Your task to perform on an android device: toggle location history Image 0: 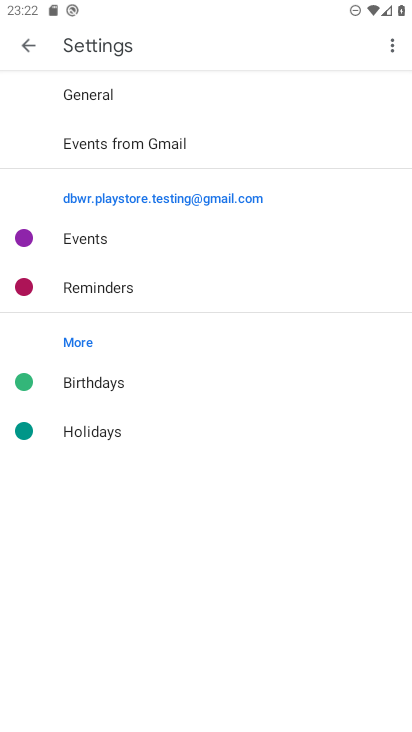
Step 0: drag from (249, 645) to (238, 247)
Your task to perform on an android device: toggle location history Image 1: 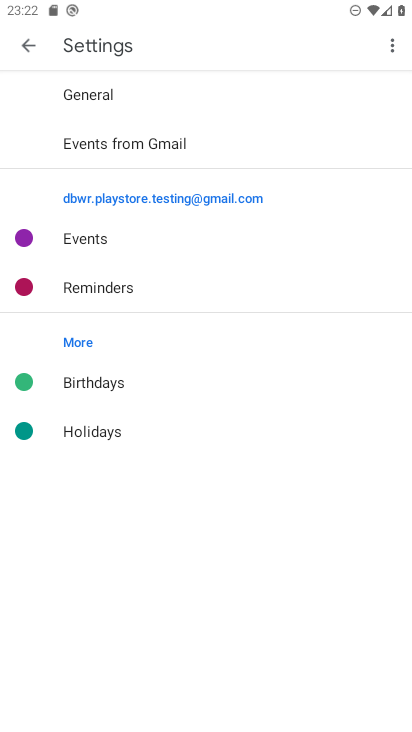
Step 1: press home button
Your task to perform on an android device: toggle location history Image 2: 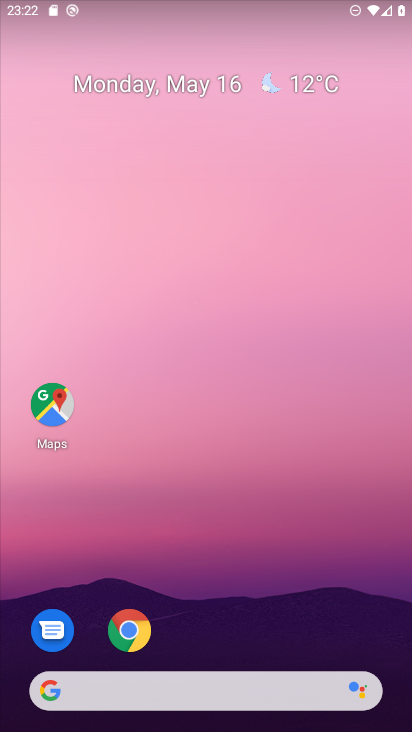
Step 2: drag from (218, 617) to (246, 78)
Your task to perform on an android device: toggle location history Image 3: 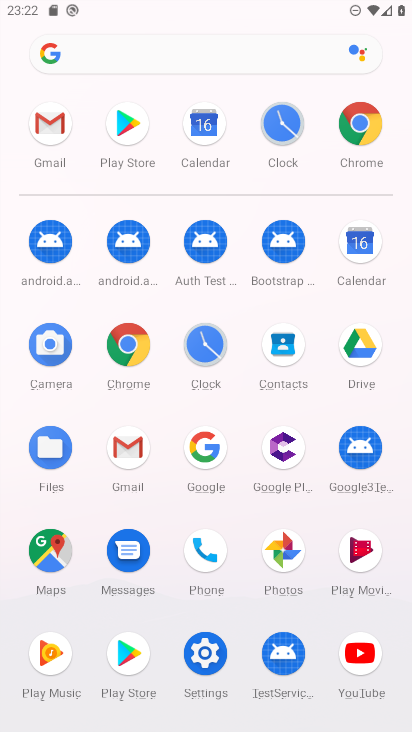
Step 3: click (206, 650)
Your task to perform on an android device: toggle location history Image 4: 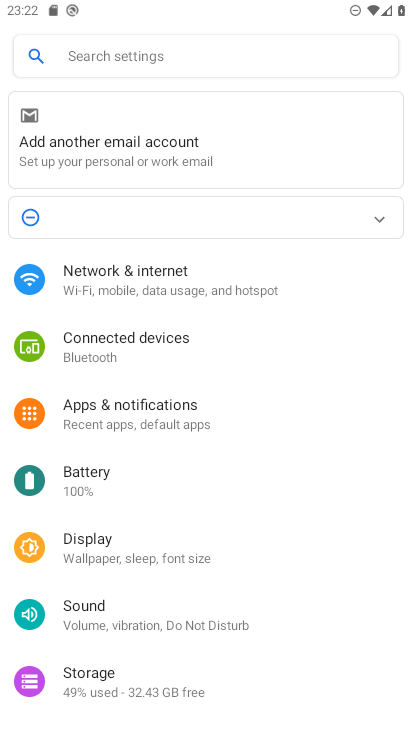
Step 4: drag from (214, 526) to (210, 307)
Your task to perform on an android device: toggle location history Image 5: 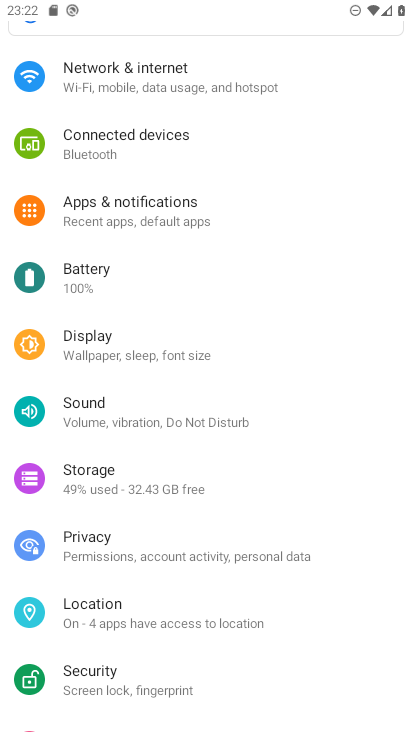
Step 5: click (117, 600)
Your task to perform on an android device: toggle location history Image 6: 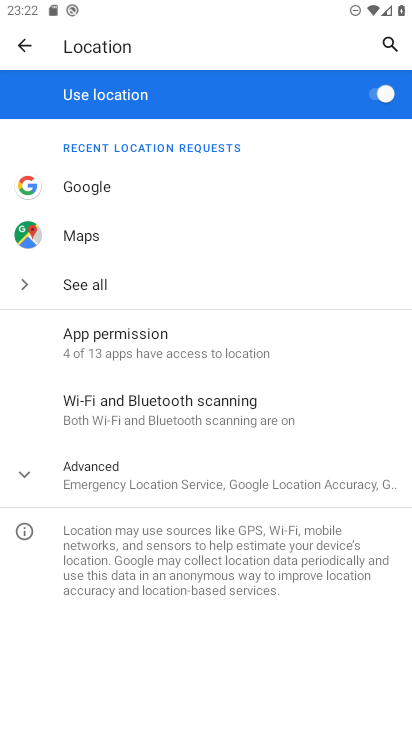
Step 6: click (26, 463)
Your task to perform on an android device: toggle location history Image 7: 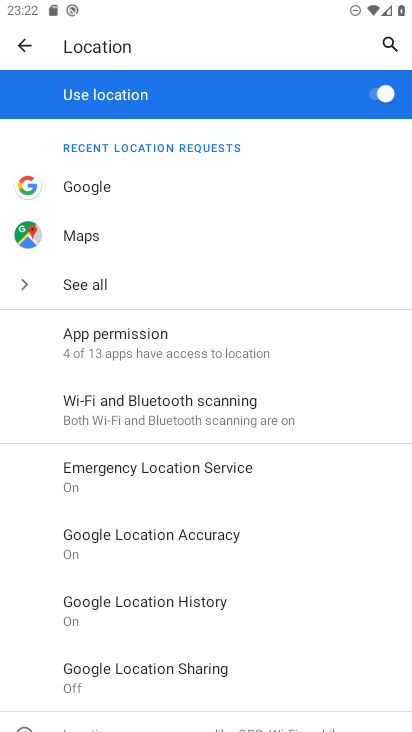
Step 7: click (218, 605)
Your task to perform on an android device: toggle location history Image 8: 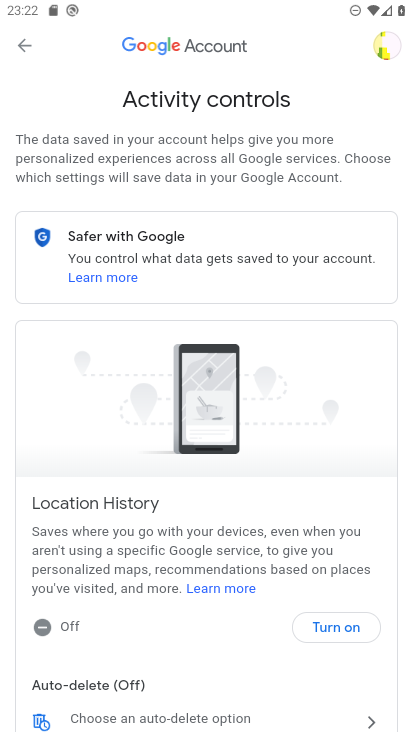
Step 8: click (25, 43)
Your task to perform on an android device: toggle location history Image 9: 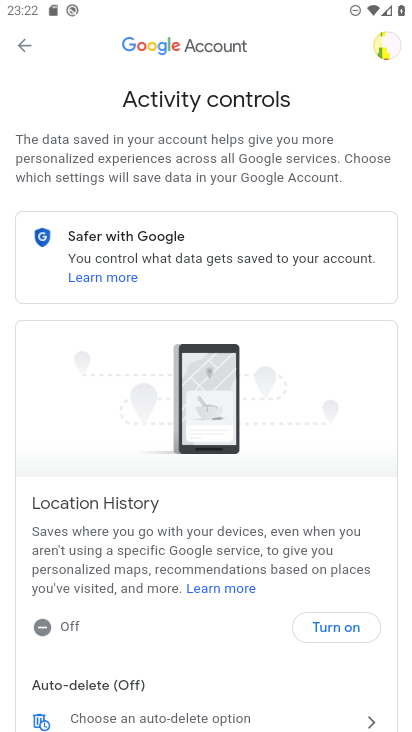
Step 9: click (25, 42)
Your task to perform on an android device: toggle location history Image 10: 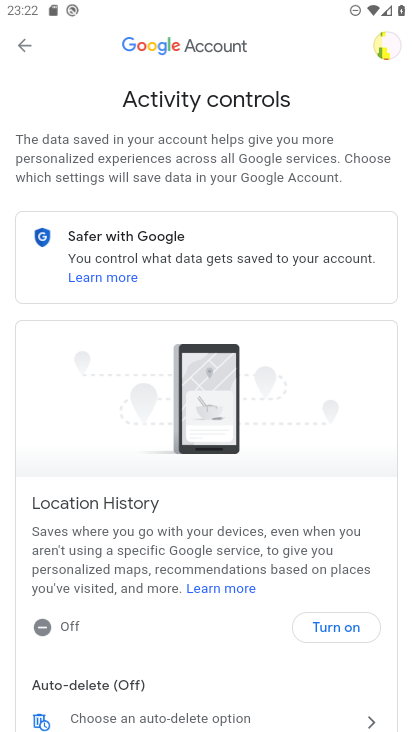
Step 10: click (17, 40)
Your task to perform on an android device: toggle location history Image 11: 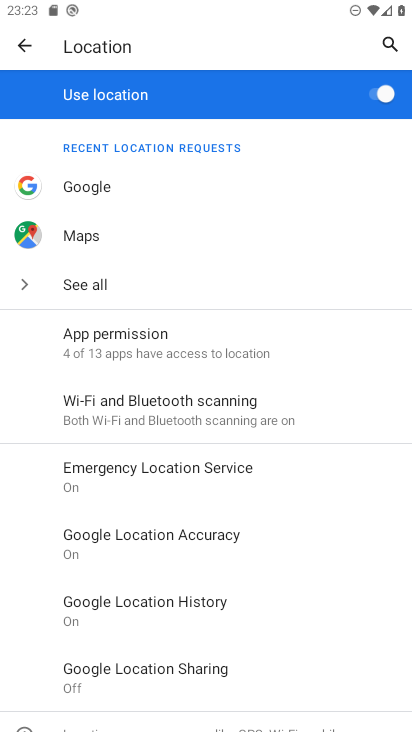
Step 11: click (141, 613)
Your task to perform on an android device: toggle location history Image 12: 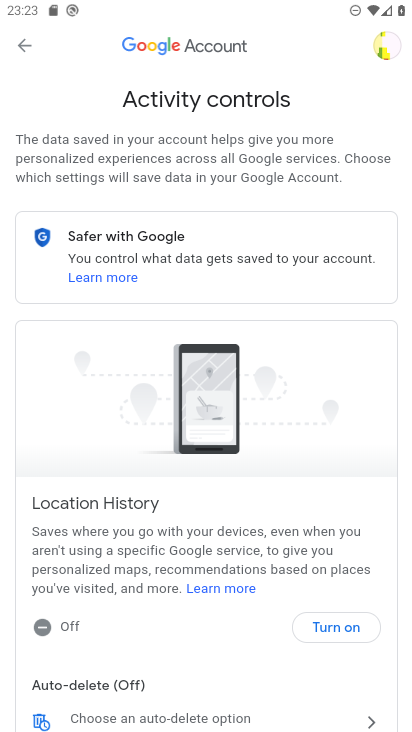
Step 12: click (338, 618)
Your task to perform on an android device: toggle location history Image 13: 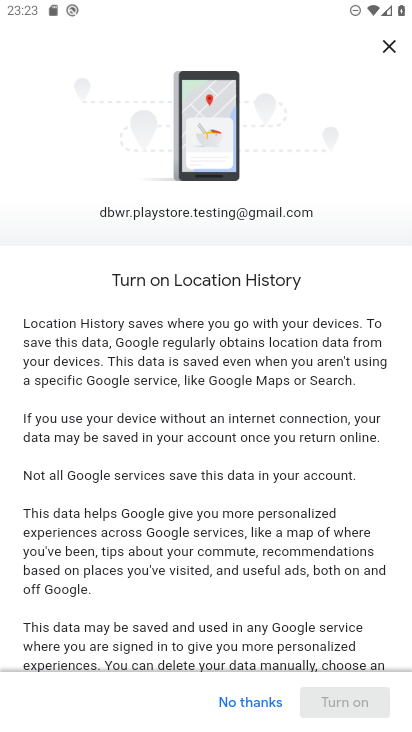
Step 13: drag from (279, 598) to (301, 319)
Your task to perform on an android device: toggle location history Image 14: 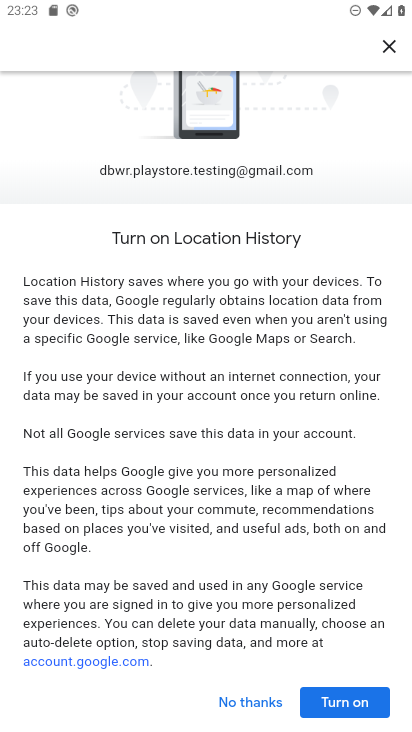
Step 14: drag from (283, 531) to (312, 322)
Your task to perform on an android device: toggle location history Image 15: 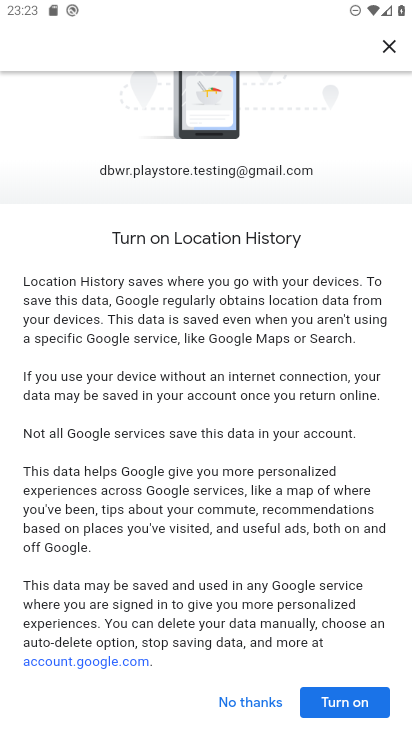
Step 15: click (327, 701)
Your task to perform on an android device: toggle location history Image 16: 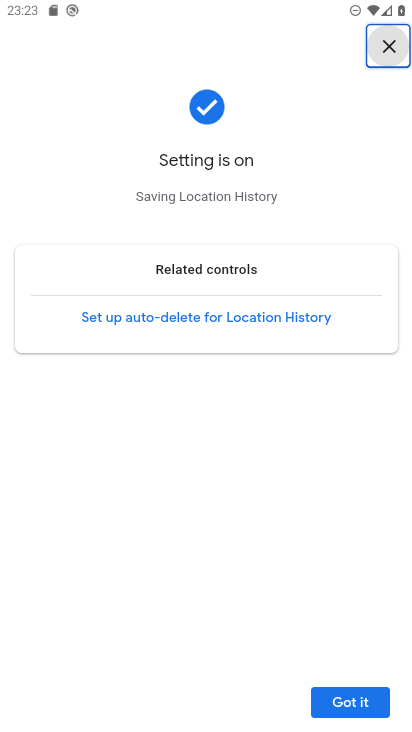
Step 16: click (364, 703)
Your task to perform on an android device: toggle location history Image 17: 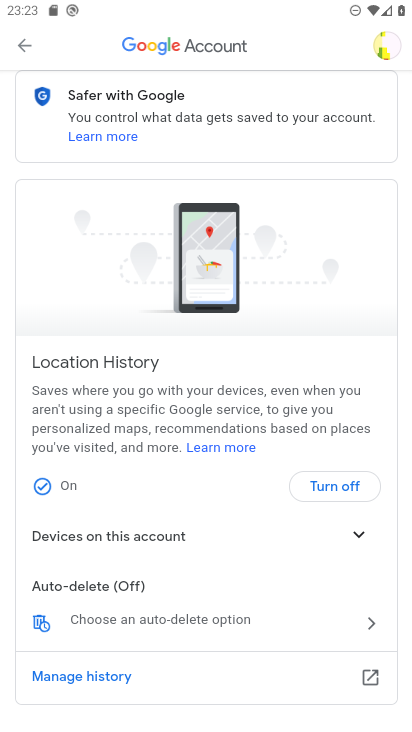
Step 17: task complete